Your task to perform on an android device: change your default location settings in chrome Image 0: 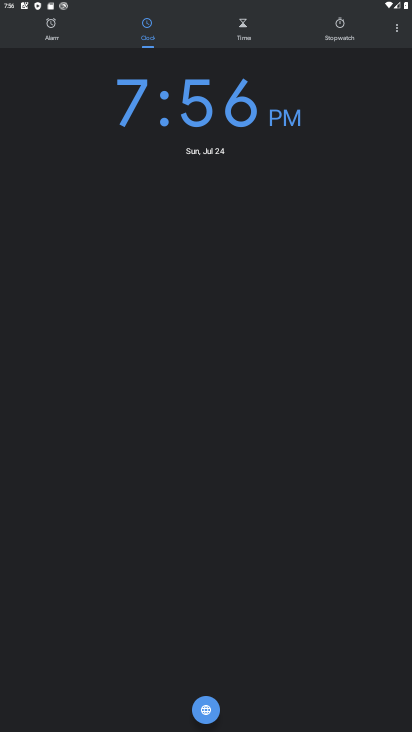
Step 0: press home button
Your task to perform on an android device: change your default location settings in chrome Image 1: 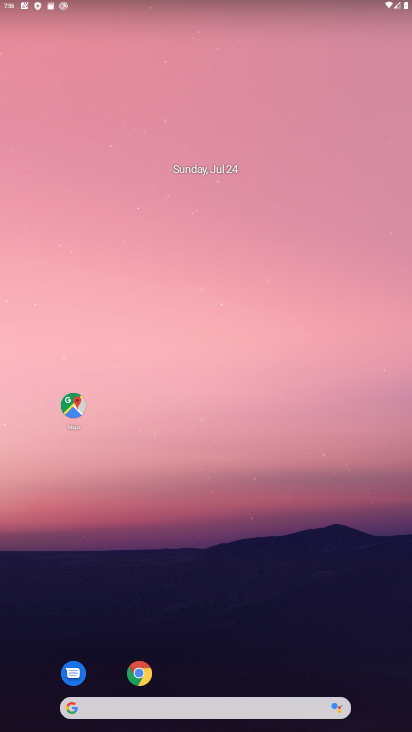
Step 1: click (142, 673)
Your task to perform on an android device: change your default location settings in chrome Image 2: 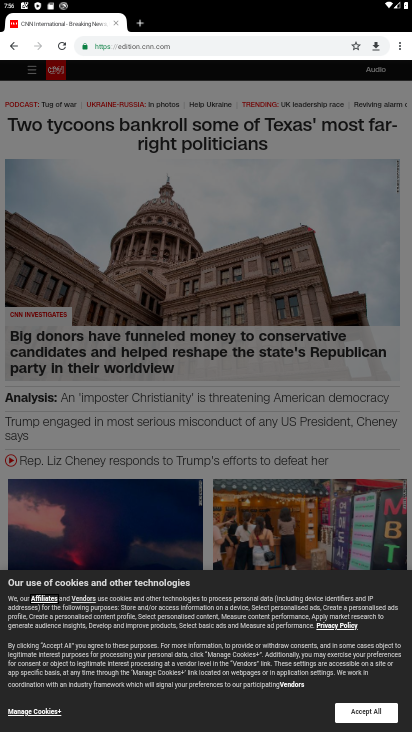
Step 2: click (401, 45)
Your task to perform on an android device: change your default location settings in chrome Image 3: 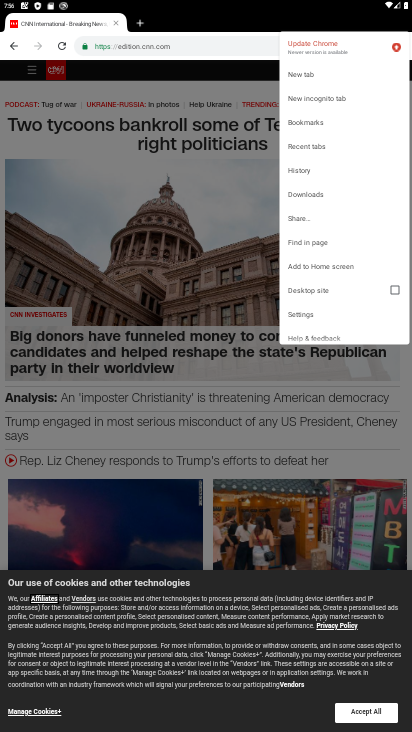
Step 3: click (297, 315)
Your task to perform on an android device: change your default location settings in chrome Image 4: 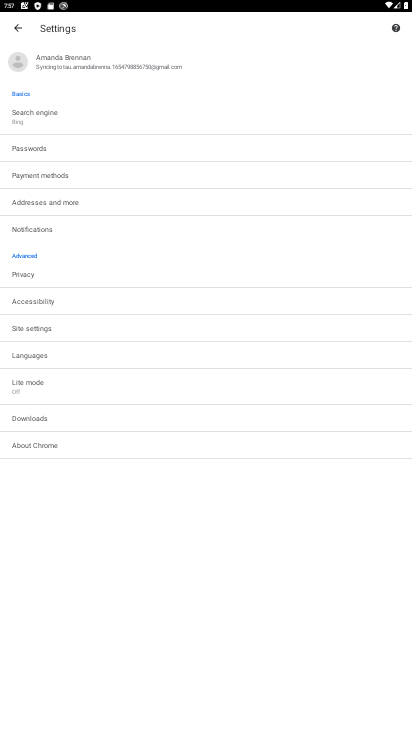
Step 4: click (42, 329)
Your task to perform on an android device: change your default location settings in chrome Image 5: 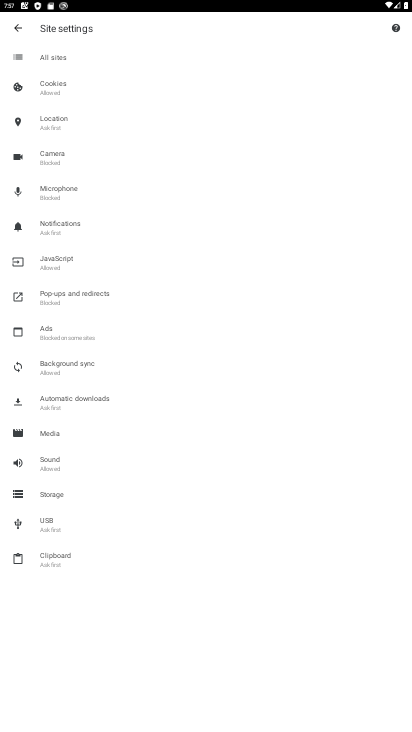
Step 5: click (66, 127)
Your task to perform on an android device: change your default location settings in chrome Image 6: 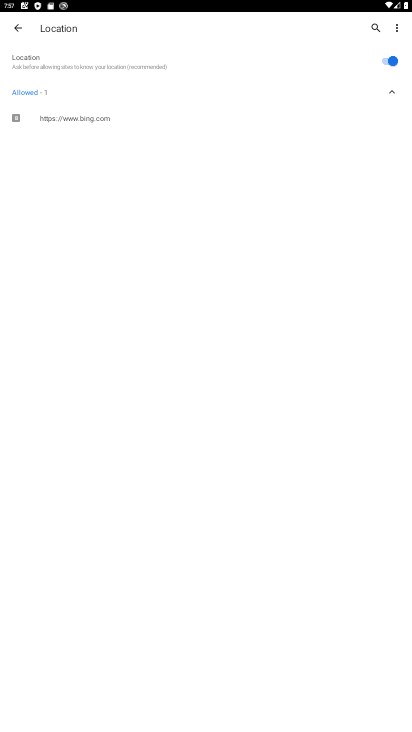
Step 6: click (383, 62)
Your task to perform on an android device: change your default location settings in chrome Image 7: 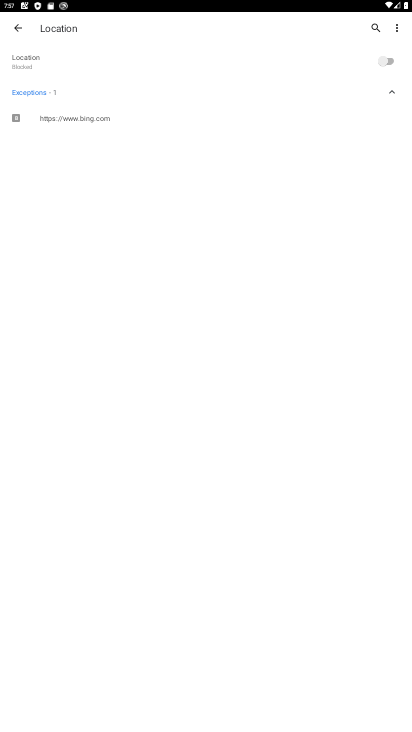
Step 7: task complete